Your task to perform on an android device: What's on my calendar today? Image 0: 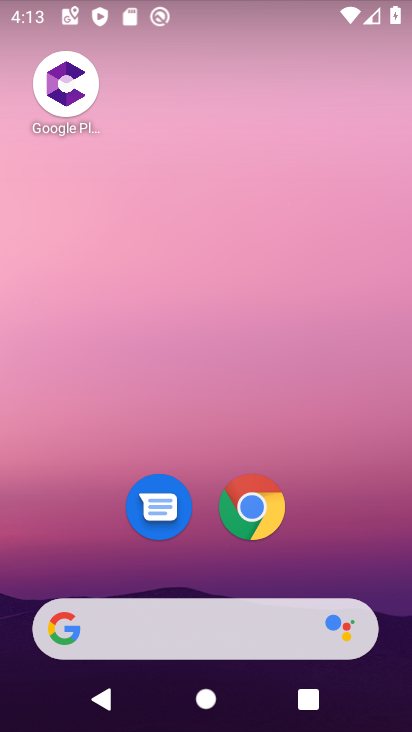
Step 0: drag from (247, 627) to (237, 8)
Your task to perform on an android device: What's on my calendar today? Image 1: 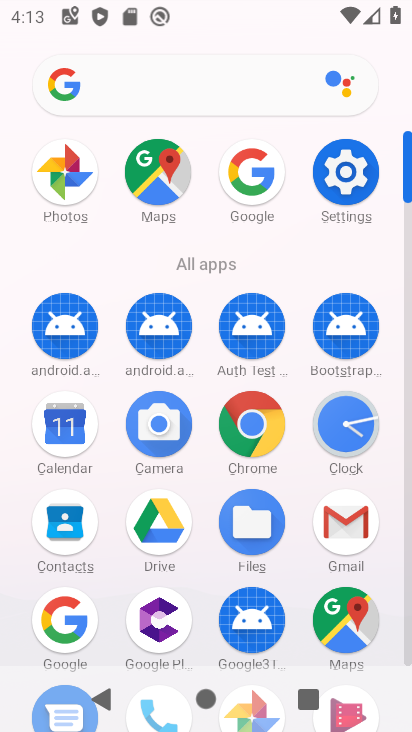
Step 1: click (81, 431)
Your task to perform on an android device: What's on my calendar today? Image 2: 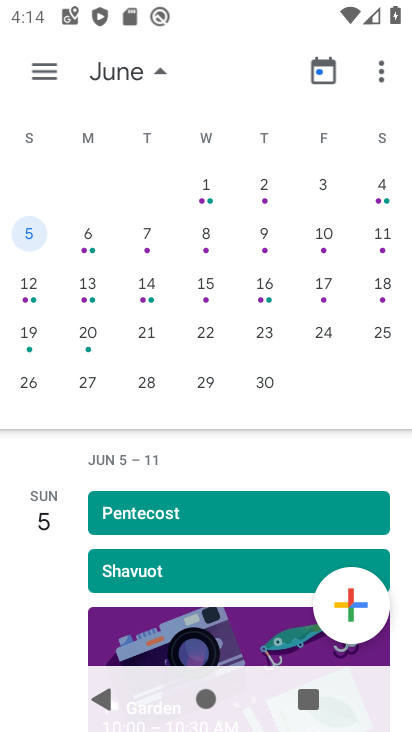
Step 2: drag from (119, 264) to (375, 264)
Your task to perform on an android device: What's on my calendar today? Image 3: 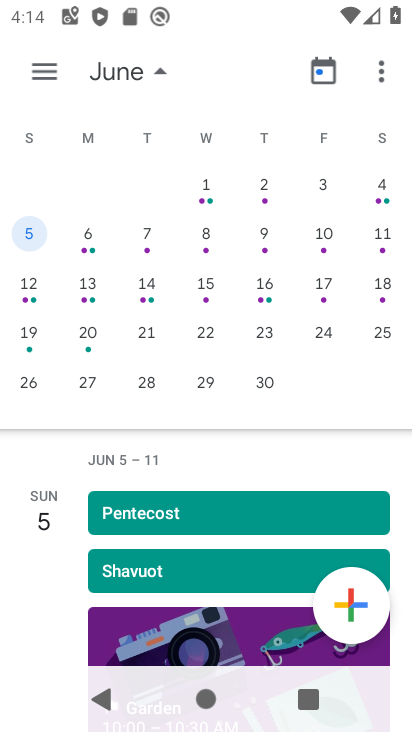
Step 3: drag from (128, 299) to (401, 326)
Your task to perform on an android device: What's on my calendar today? Image 4: 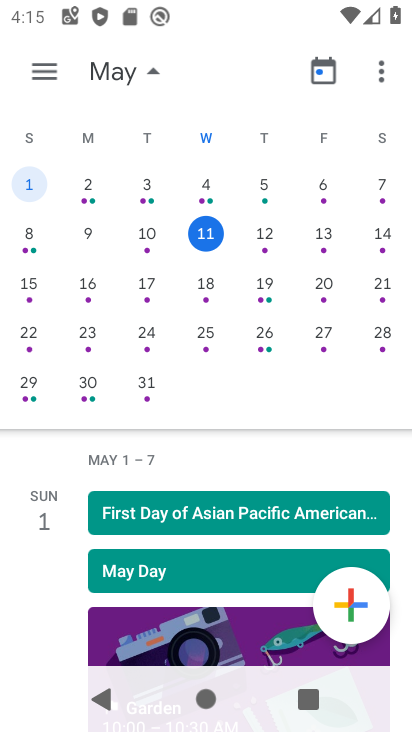
Step 4: click (220, 232)
Your task to perform on an android device: What's on my calendar today? Image 5: 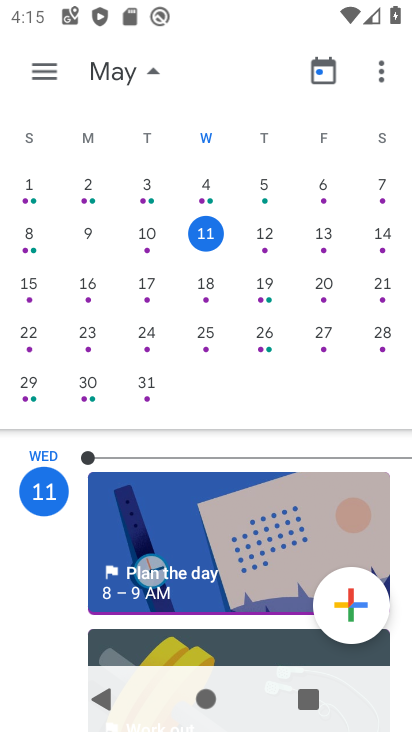
Step 5: task complete